Your task to perform on an android device: remove spam from my inbox in the gmail app Image 0: 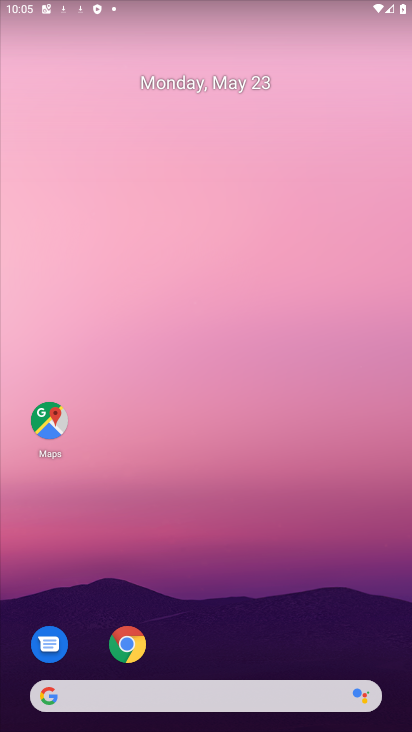
Step 0: drag from (244, 718) to (160, 139)
Your task to perform on an android device: remove spam from my inbox in the gmail app Image 1: 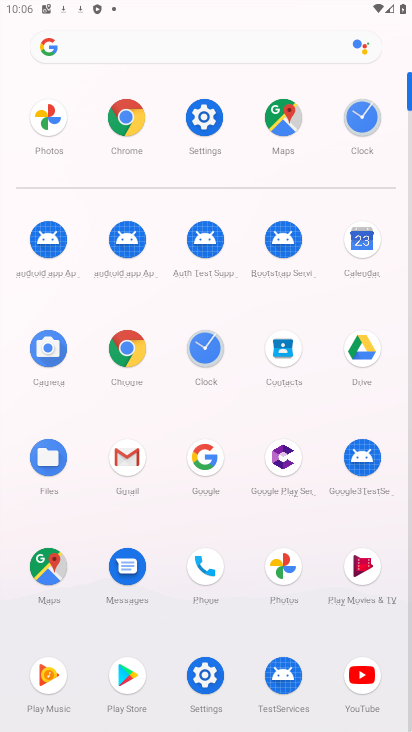
Step 1: click (119, 469)
Your task to perform on an android device: remove spam from my inbox in the gmail app Image 2: 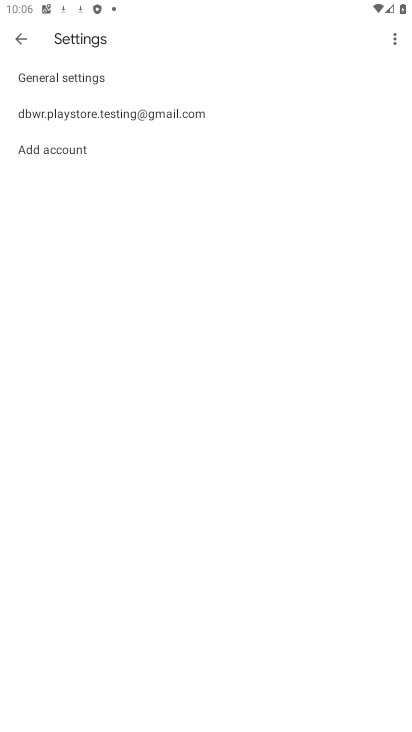
Step 2: click (83, 114)
Your task to perform on an android device: remove spam from my inbox in the gmail app Image 3: 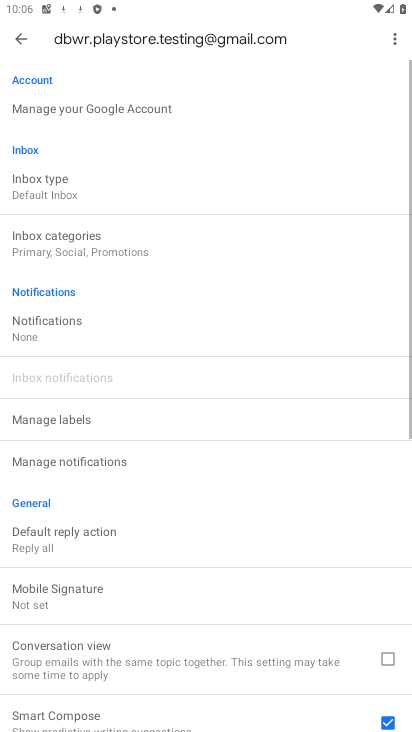
Step 3: click (25, 39)
Your task to perform on an android device: remove spam from my inbox in the gmail app Image 4: 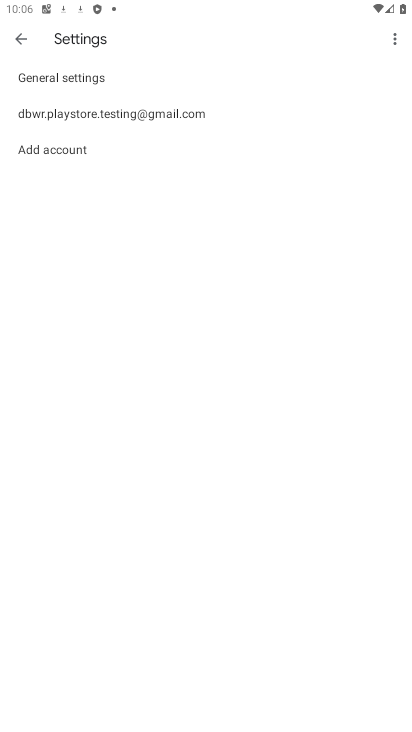
Step 4: click (25, 48)
Your task to perform on an android device: remove spam from my inbox in the gmail app Image 5: 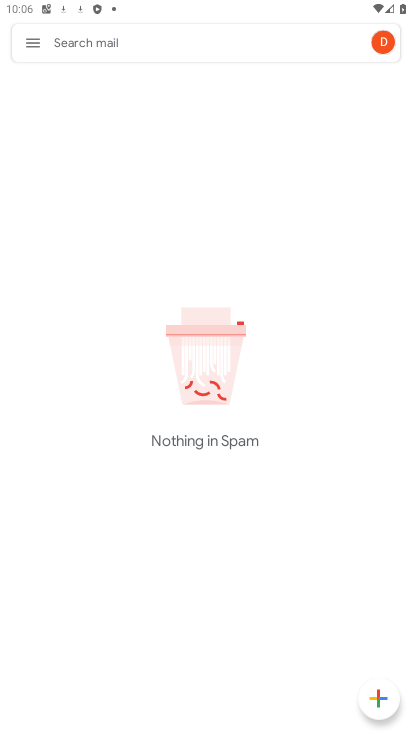
Step 5: click (31, 35)
Your task to perform on an android device: remove spam from my inbox in the gmail app Image 6: 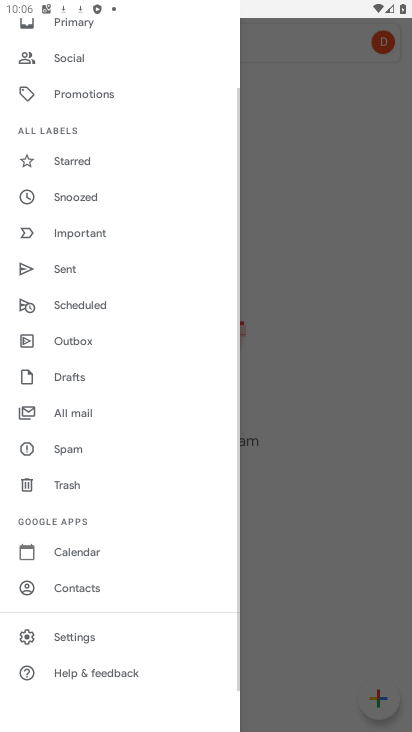
Step 6: click (78, 456)
Your task to perform on an android device: remove spam from my inbox in the gmail app Image 7: 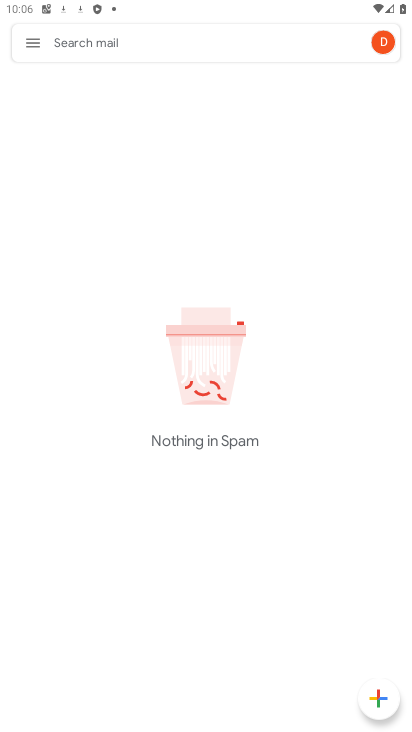
Step 7: task complete